Your task to perform on an android device: add a contact in the contacts app Image 0: 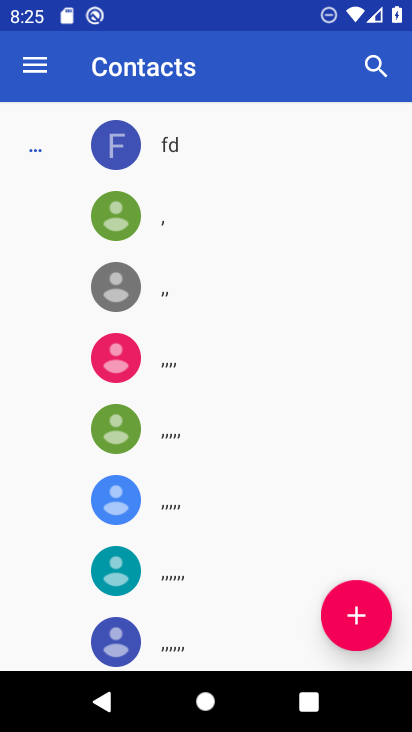
Step 0: click (379, 625)
Your task to perform on an android device: add a contact in the contacts app Image 1: 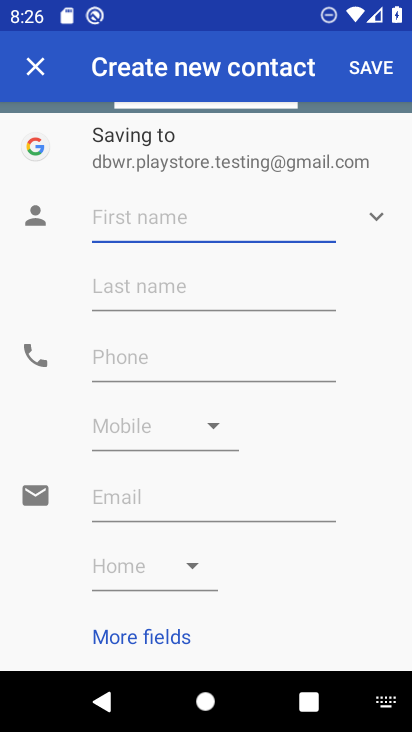
Step 1: type "Maha Mrityunjaya"
Your task to perform on an android device: add a contact in the contacts app Image 2: 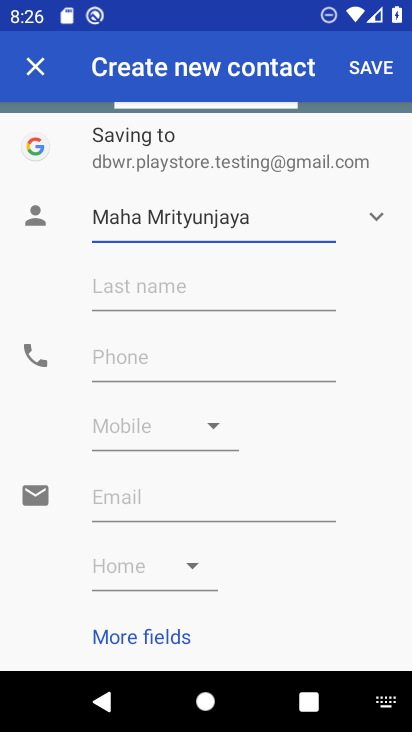
Step 2: click (249, 371)
Your task to perform on an android device: add a contact in the contacts app Image 3: 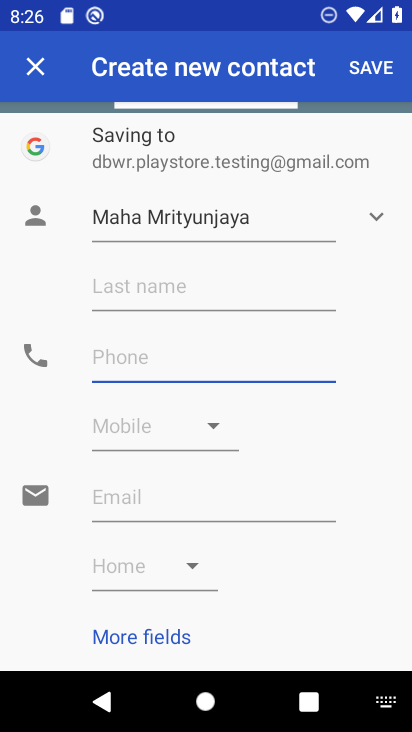
Step 3: type "011223445566"
Your task to perform on an android device: add a contact in the contacts app Image 4: 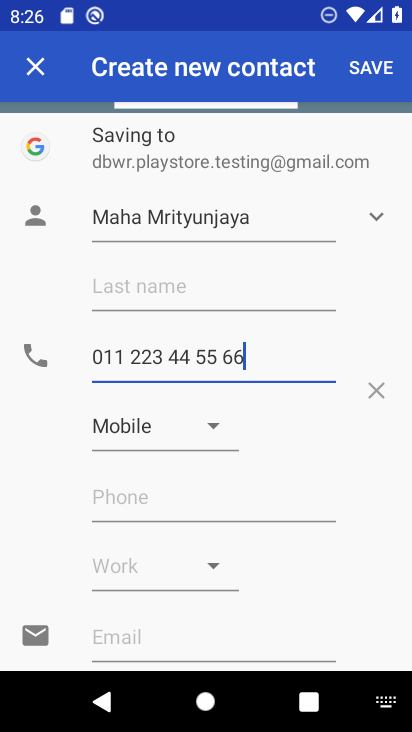
Step 4: click (371, 73)
Your task to perform on an android device: add a contact in the contacts app Image 5: 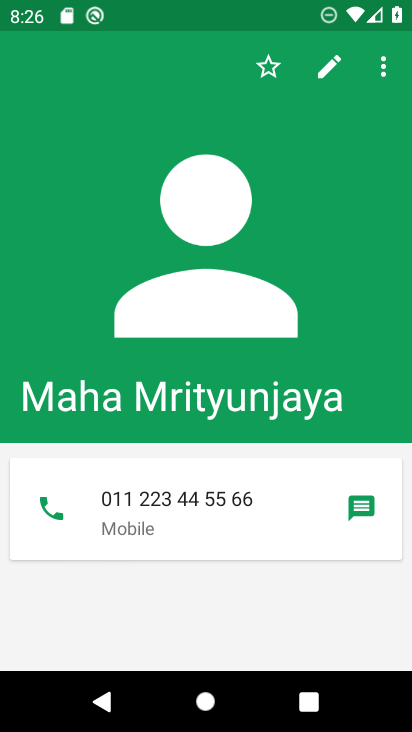
Step 5: task complete